Your task to perform on an android device: turn on data saver in the chrome app Image 0: 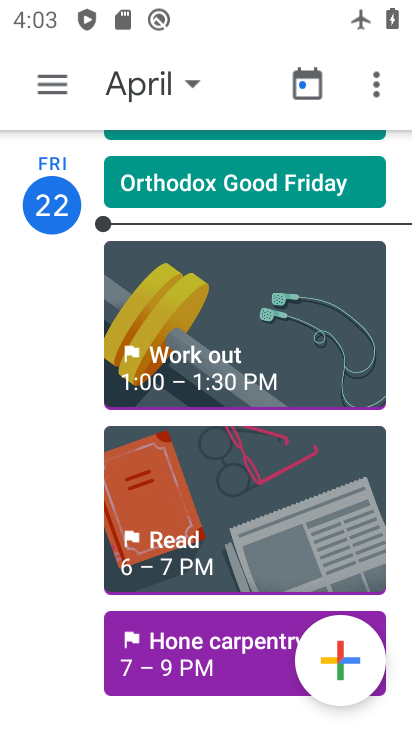
Step 0: press home button
Your task to perform on an android device: turn on data saver in the chrome app Image 1: 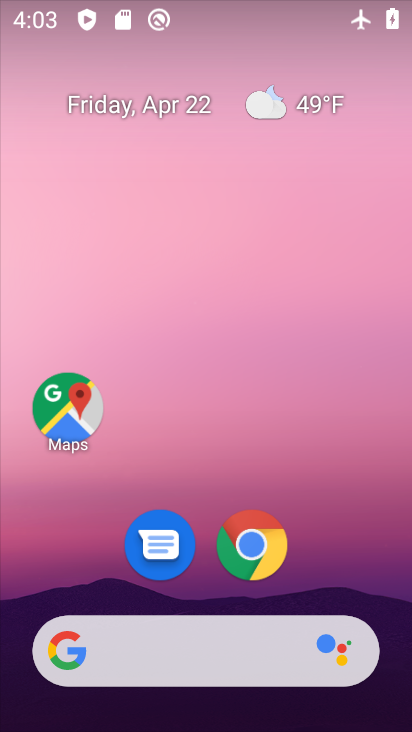
Step 1: drag from (307, 462) to (369, 30)
Your task to perform on an android device: turn on data saver in the chrome app Image 2: 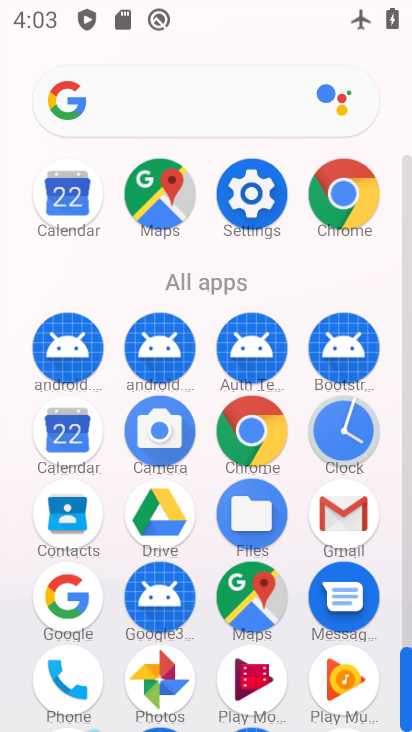
Step 2: click (344, 183)
Your task to perform on an android device: turn on data saver in the chrome app Image 3: 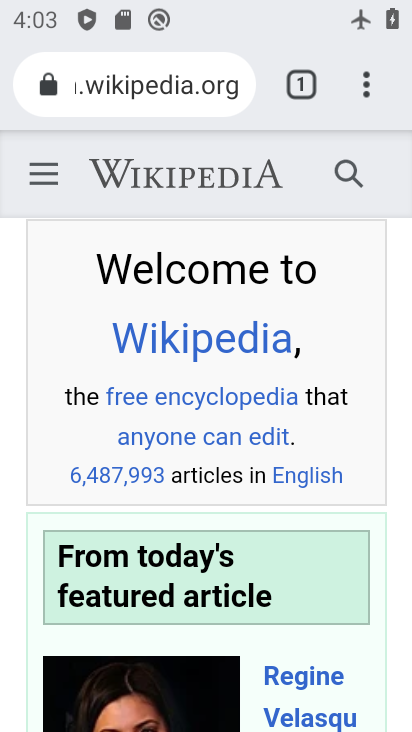
Step 3: drag from (370, 94) to (105, 597)
Your task to perform on an android device: turn on data saver in the chrome app Image 4: 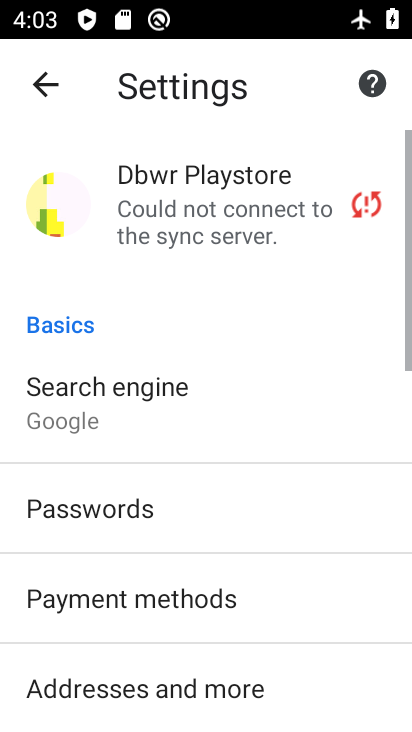
Step 4: drag from (105, 597) to (198, 173)
Your task to perform on an android device: turn on data saver in the chrome app Image 5: 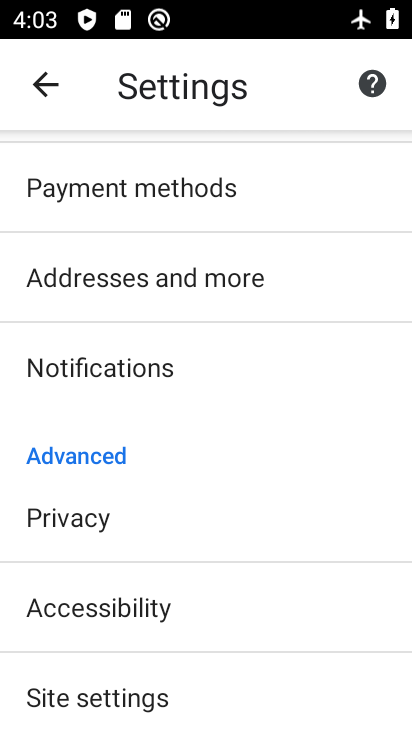
Step 5: drag from (182, 686) to (271, 150)
Your task to perform on an android device: turn on data saver in the chrome app Image 6: 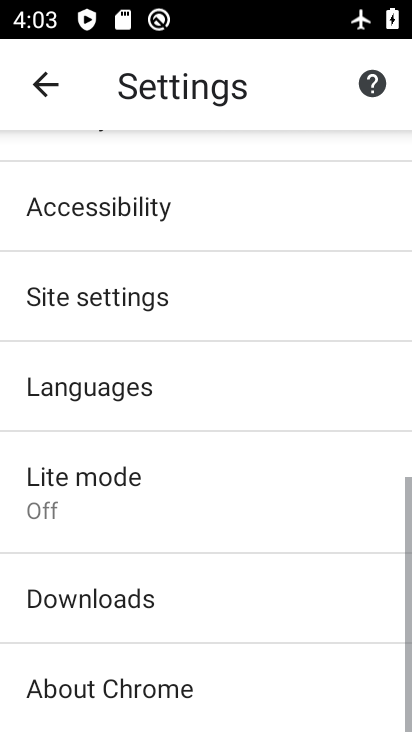
Step 6: click (158, 498)
Your task to perform on an android device: turn on data saver in the chrome app Image 7: 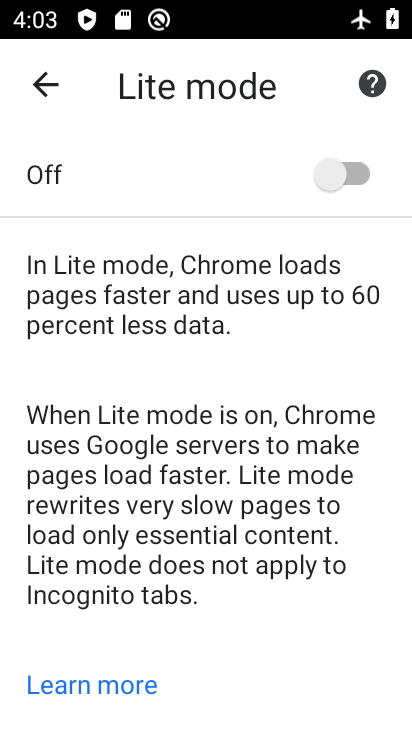
Step 7: click (347, 186)
Your task to perform on an android device: turn on data saver in the chrome app Image 8: 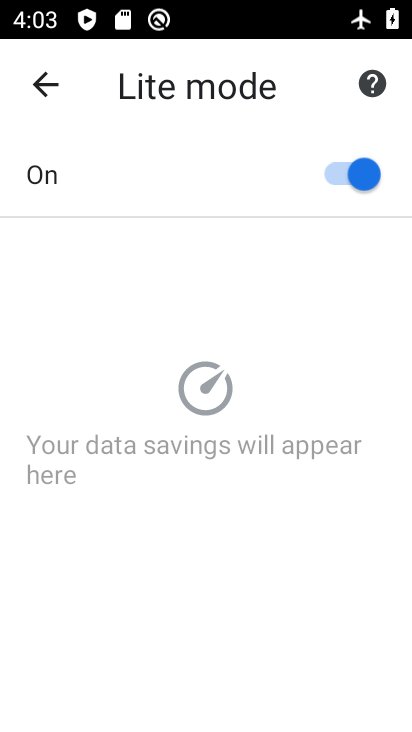
Step 8: task complete